Your task to perform on an android device: Turn on the flashlight Image 0: 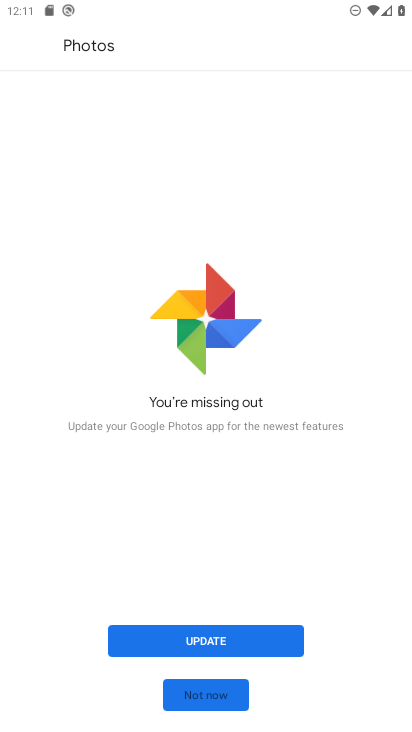
Step 0: click (193, 693)
Your task to perform on an android device: Turn on the flashlight Image 1: 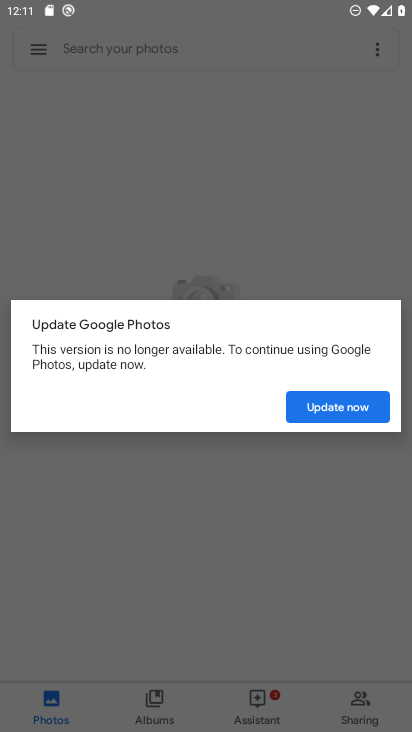
Step 1: press home button
Your task to perform on an android device: Turn on the flashlight Image 2: 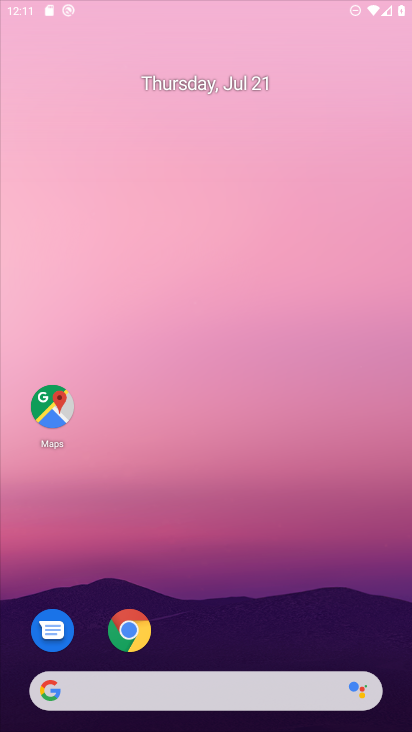
Step 2: drag from (207, 580) to (322, 97)
Your task to perform on an android device: Turn on the flashlight Image 3: 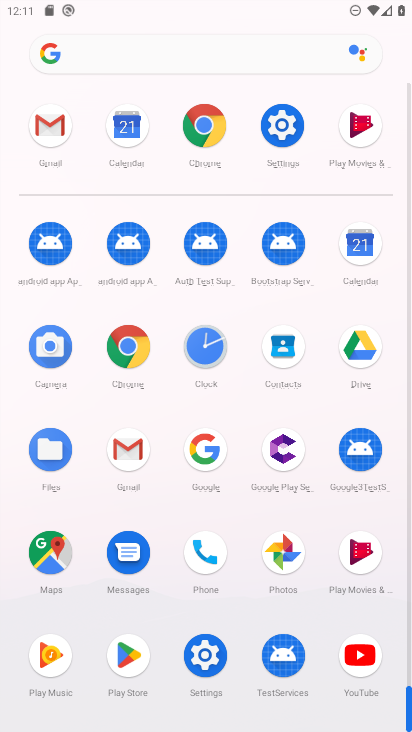
Step 3: click (272, 115)
Your task to perform on an android device: Turn on the flashlight Image 4: 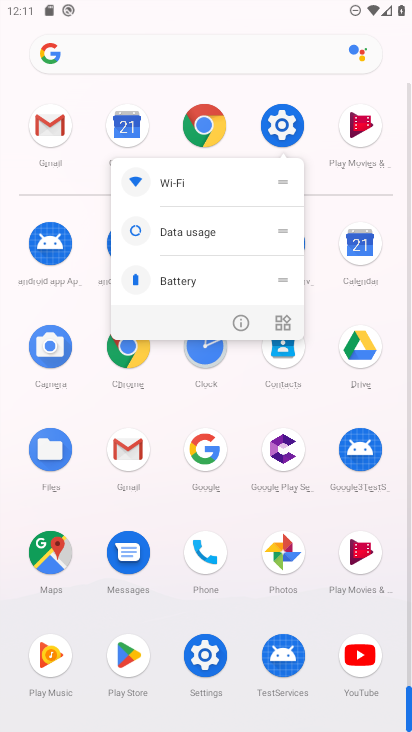
Step 4: click (232, 320)
Your task to perform on an android device: Turn on the flashlight Image 5: 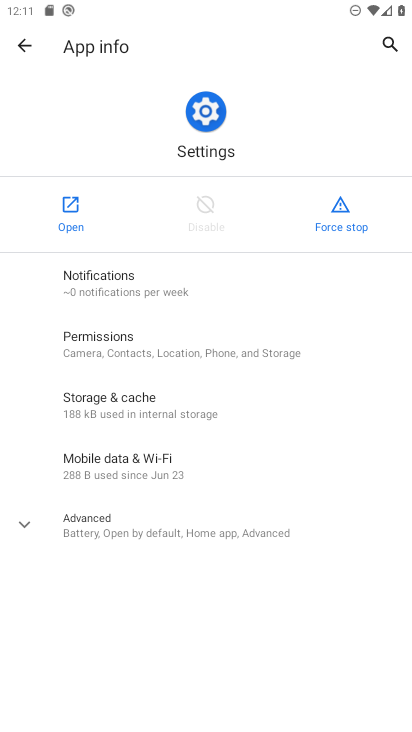
Step 5: click (70, 205)
Your task to perform on an android device: Turn on the flashlight Image 6: 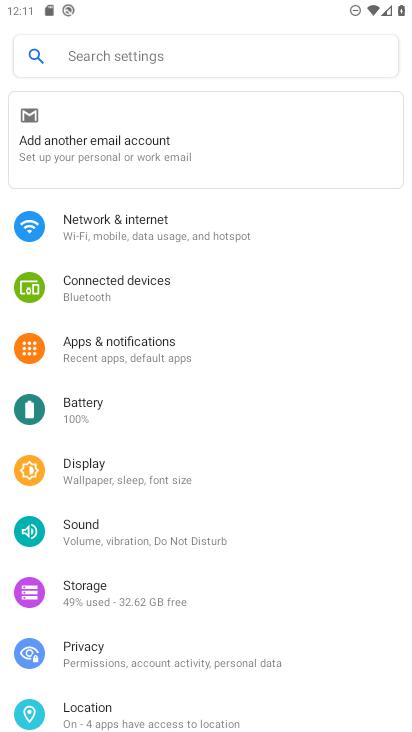
Step 6: click (157, 52)
Your task to perform on an android device: Turn on the flashlight Image 7: 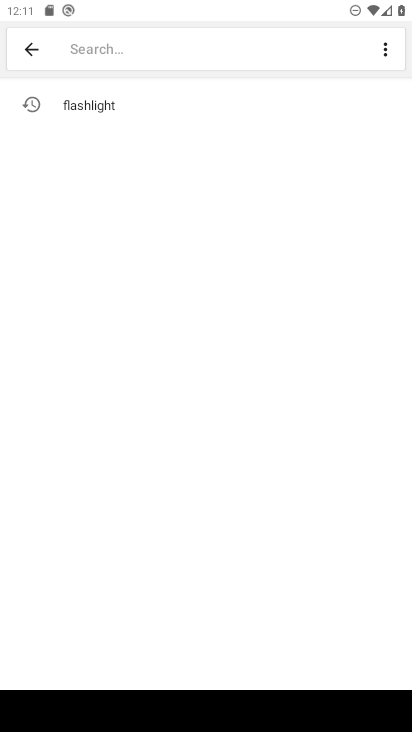
Step 7: click (147, 105)
Your task to perform on an android device: Turn on the flashlight Image 8: 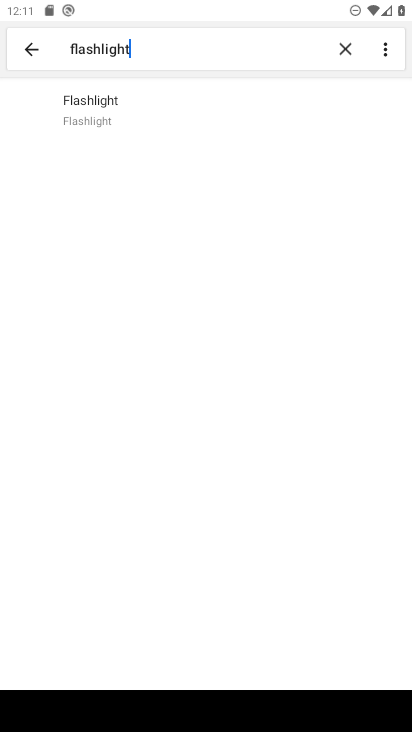
Step 8: task complete